Your task to perform on an android device: change notifications settings Image 0: 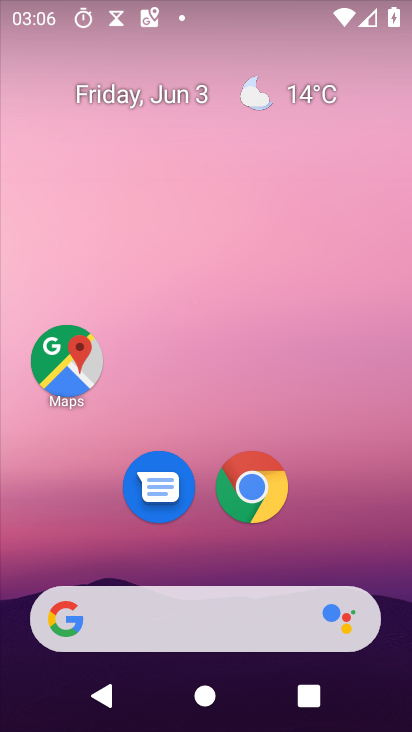
Step 0: drag from (254, 380) to (218, 41)
Your task to perform on an android device: change notifications settings Image 1: 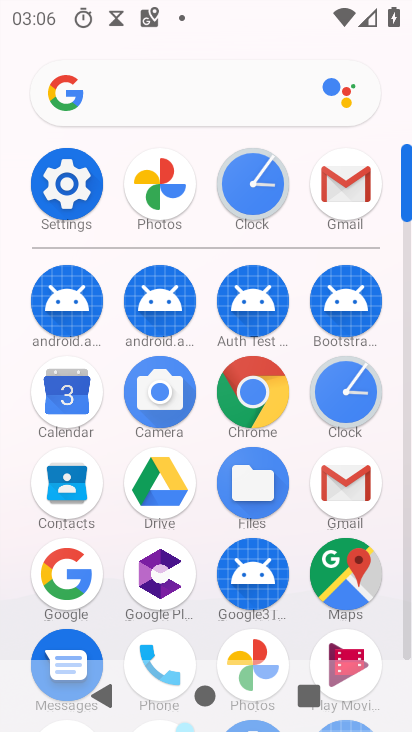
Step 1: click (85, 186)
Your task to perform on an android device: change notifications settings Image 2: 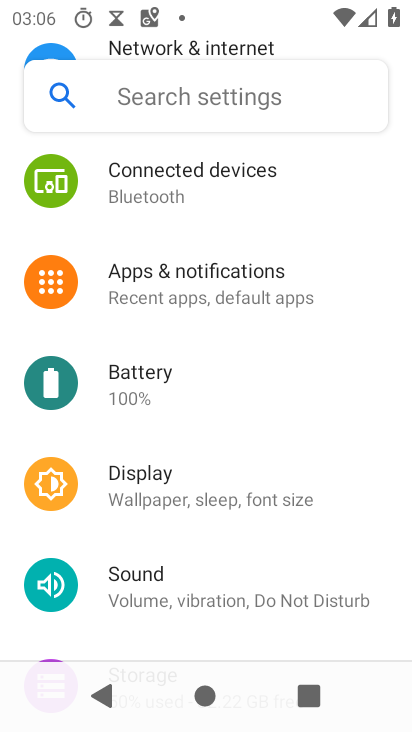
Step 2: click (213, 287)
Your task to perform on an android device: change notifications settings Image 3: 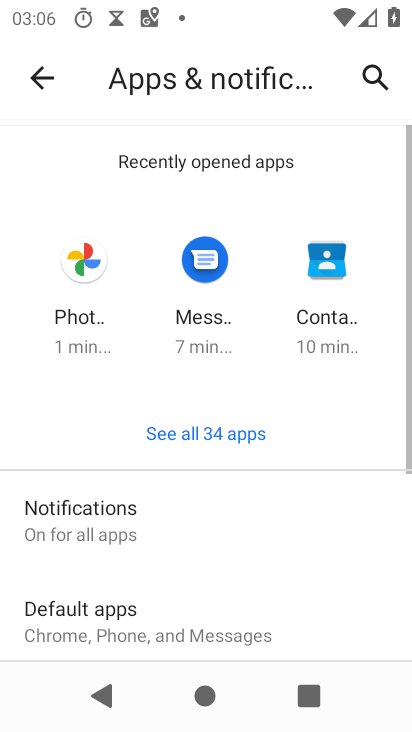
Step 3: click (195, 527)
Your task to perform on an android device: change notifications settings Image 4: 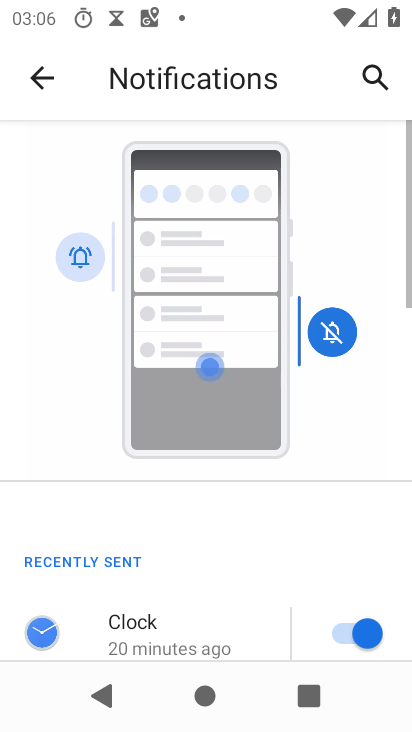
Step 4: drag from (279, 581) to (276, 101)
Your task to perform on an android device: change notifications settings Image 5: 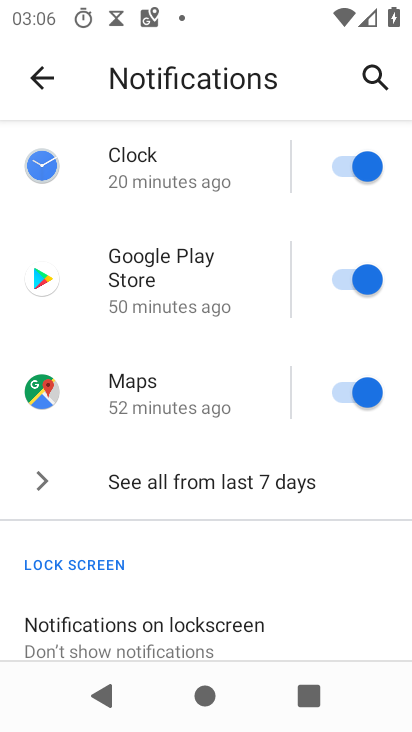
Step 5: click (353, 169)
Your task to perform on an android device: change notifications settings Image 6: 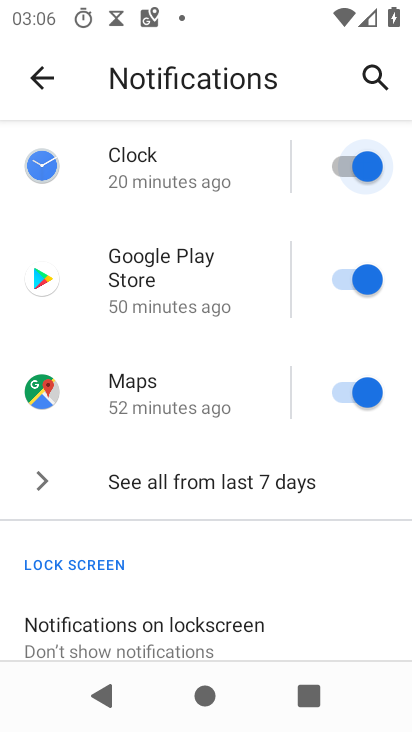
Step 6: click (367, 275)
Your task to perform on an android device: change notifications settings Image 7: 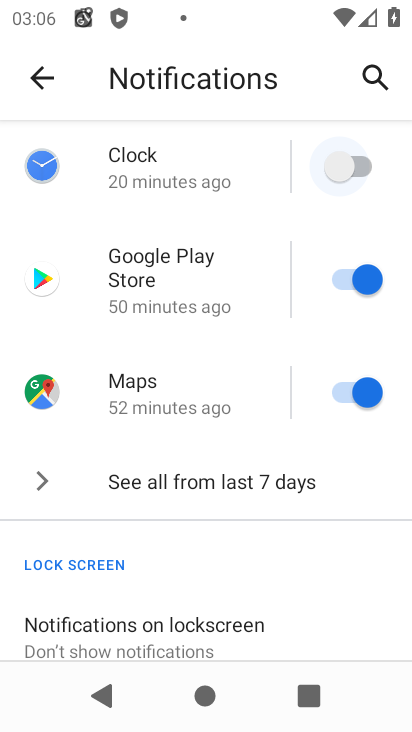
Step 7: click (362, 398)
Your task to perform on an android device: change notifications settings Image 8: 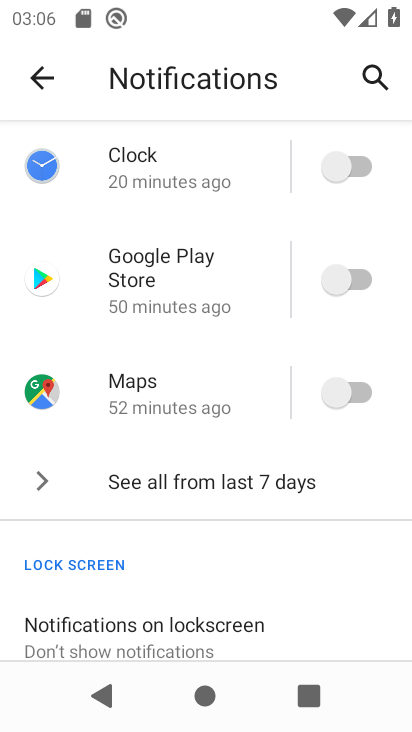
Step 8: task complete